Your task to perform on an android device: search for starred emails in the gmail app Image 0: 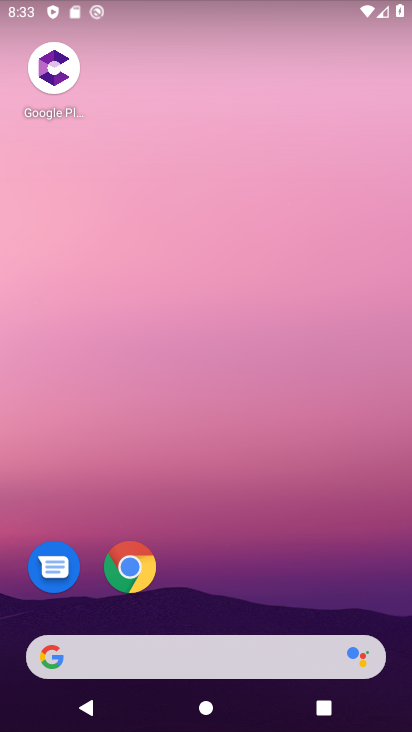
Step 0: drag from (208, 616) to (196, 125)
Your task to perform on an android device: search for starred emails in the gmail app Image 1: 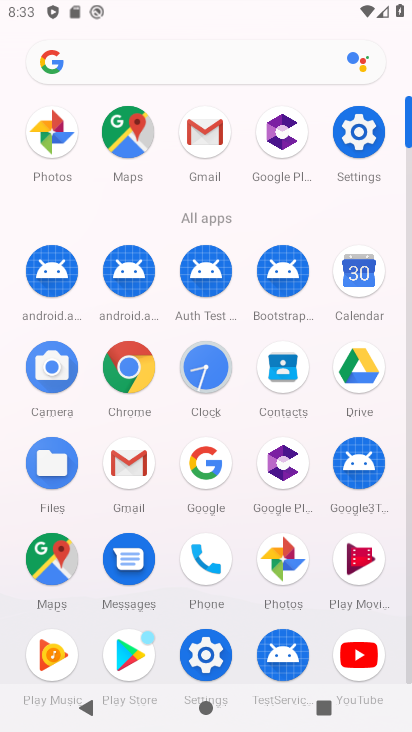
Step 1: click (213, 119)
Your task to perform on an android device: search for starred emails in the gmail app Image 2: 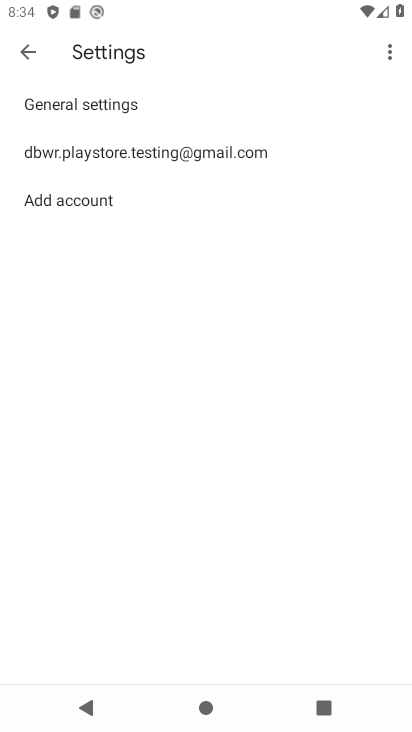
Step 2: click (33, 47)
Your task to perform on an android device: search for starred emails in the gmail app Image 3: 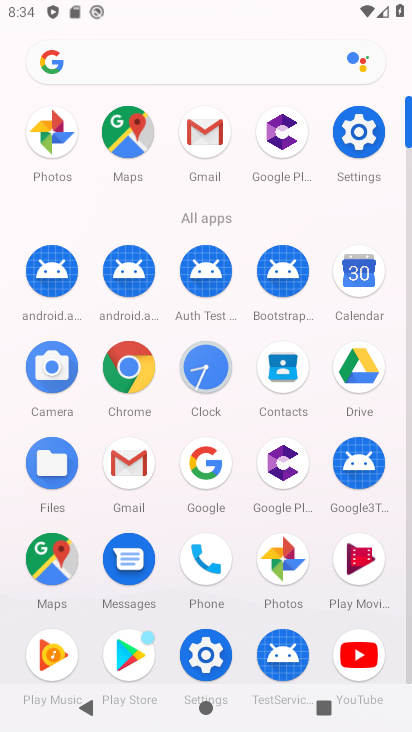
Step 3: click (199, 146)
Your task to perform on an android device: search for starred emails in the gmail app Image 4: 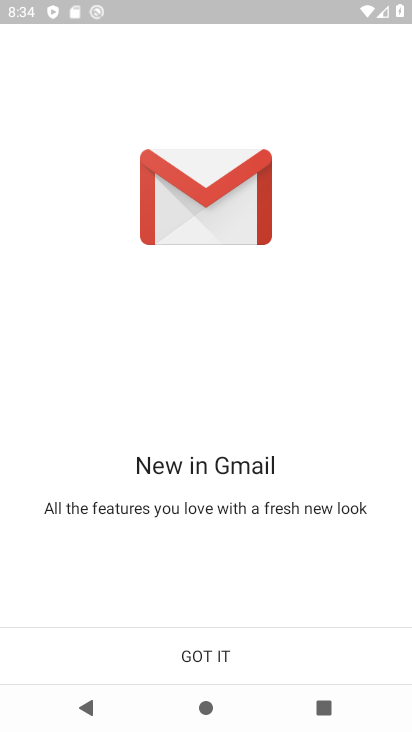
Step 4: click (211, 655)
Your task to perform on an android device: search for starred emails in the gmail app Image 5: 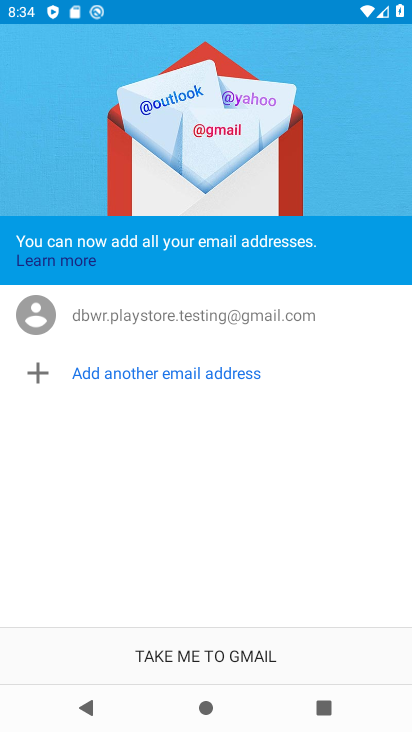
Step 5: click (211, 655)
Your task to perform on an android device: search for starred emails in the gmail app Image 6: 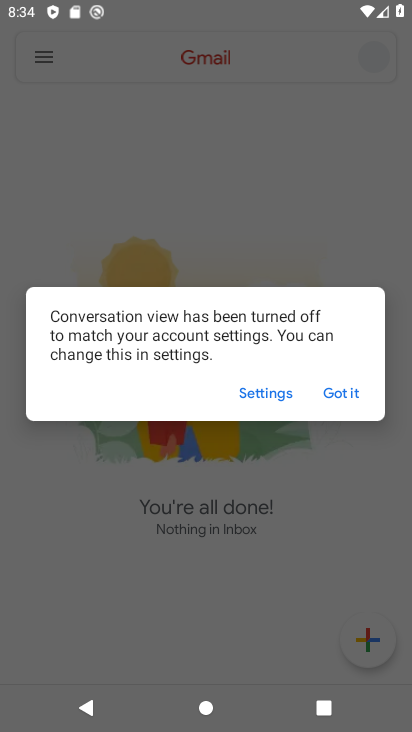
Step 6: click (348, 395)
Your task to perform on an android device: search for starred emails in the gmail app Image 7: 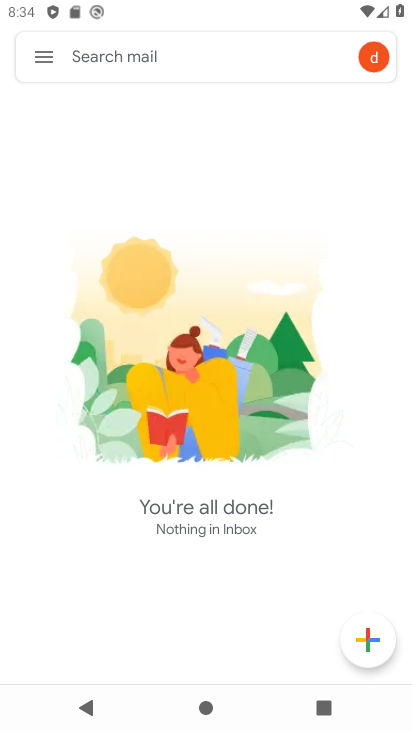
Step 7: click (55, 56)
Your task to perform on an android device: search for starred emails in the gmail app Image 8: 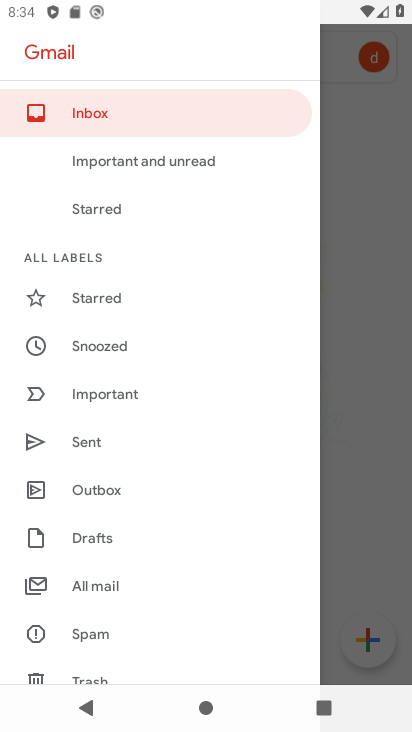
Step 8: click (117, 291)
Your task to perform on an android device: search for starred emails in the gmail app Image 9: 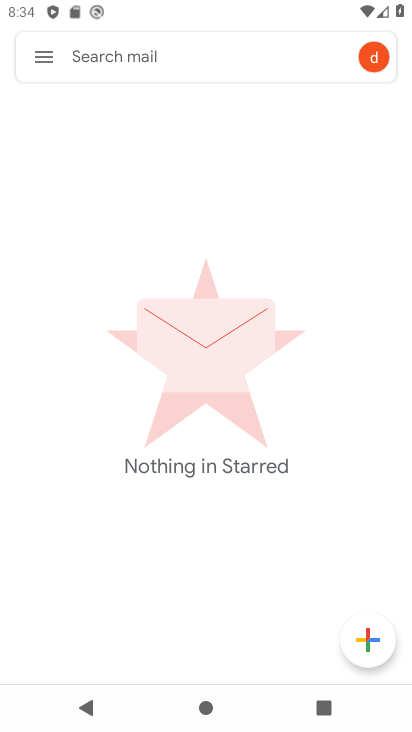
Step 9: task complete